Your task to perform on an android device: Open the calendar and show me this week's events Image 0: 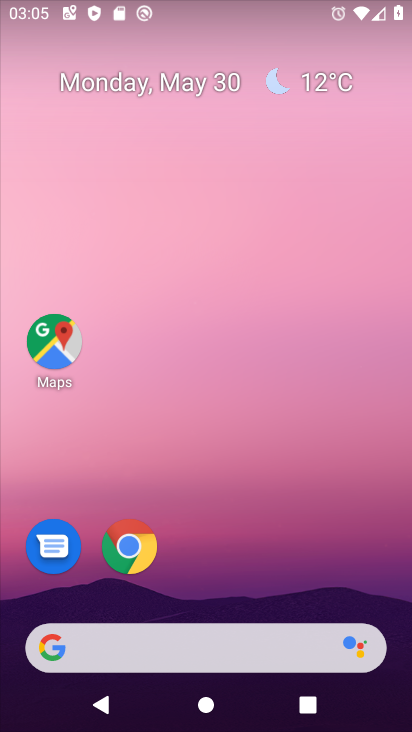
Step 0: click (218, 592)
Your task to perform on an android device: Open the calendar and show me this week's events Image 1: 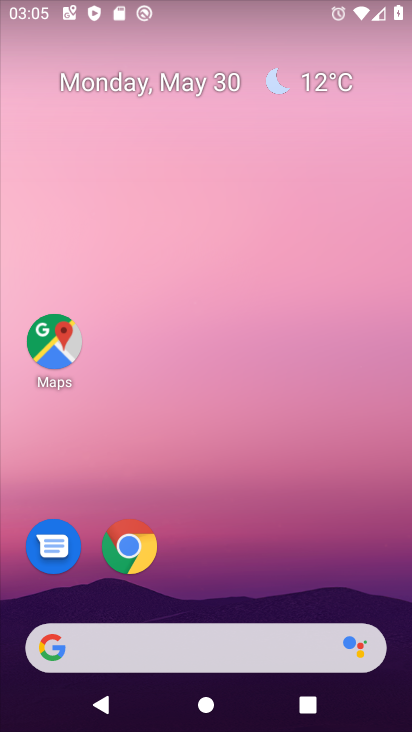
Step 1: drag from (214, 270) to (214, 104)
Your task to perform on an android device: Open the calendar and show me this week's events Image 2: 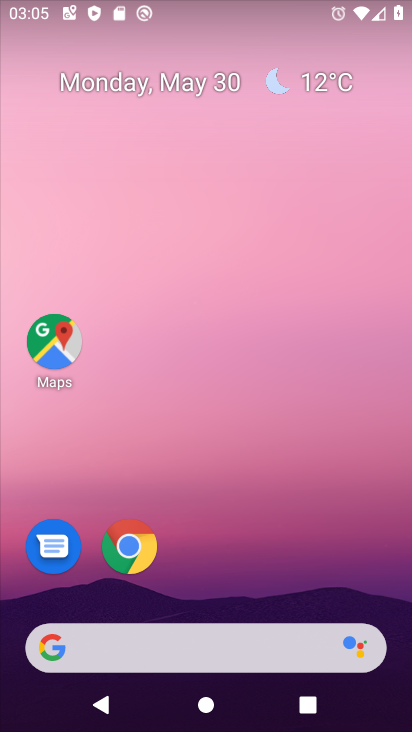
Step 2: drag from (214, 612) to (216, 31)
Your task to perform on an android device: Open the calendar and show me this week's events Image 3: 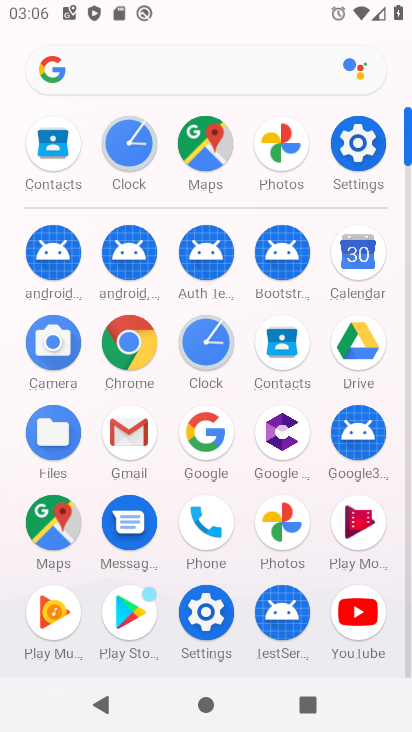
Step 3: click (357, 253)
Your task to perform on an android device: Open the calendar and show me this week's events Image 4: 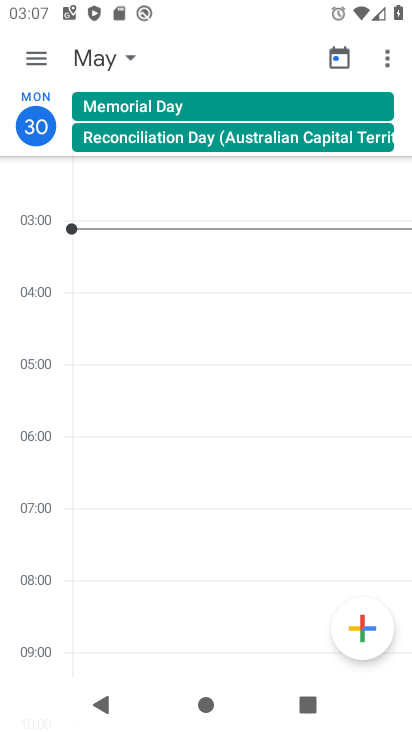
Step 4: click (55, 138)
Your task to perform on an android device: Open the calendar and show me this week's events Image 5: 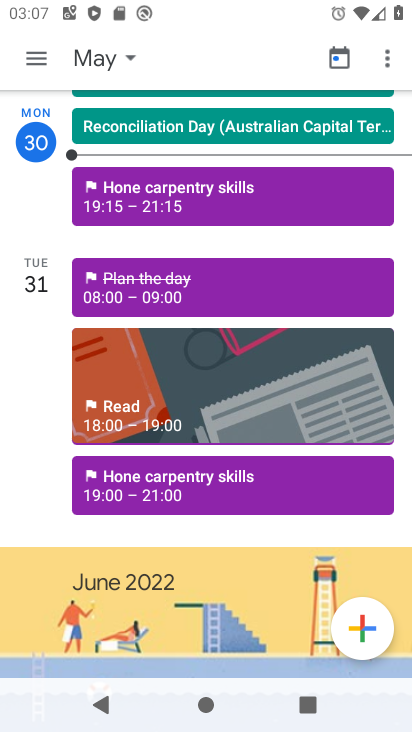
Step 5: click (30, 62)
Your task to perform on an android device: Open the calendar and show me this week's events Image 6: 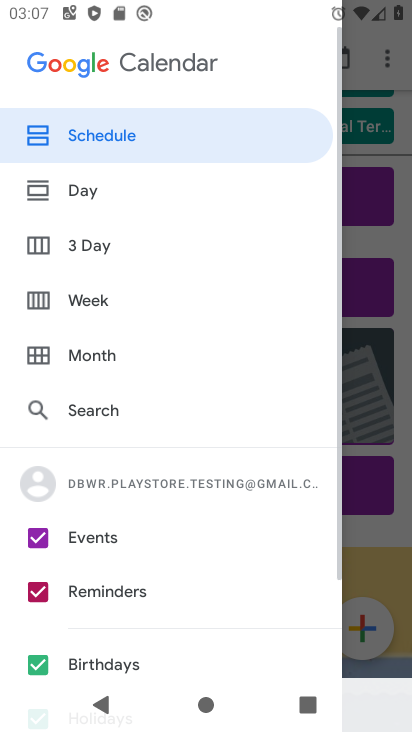
Step 6: click (31, 594)
Your task to perform on an android device: Open the calendar and show me this week's events Image 7: 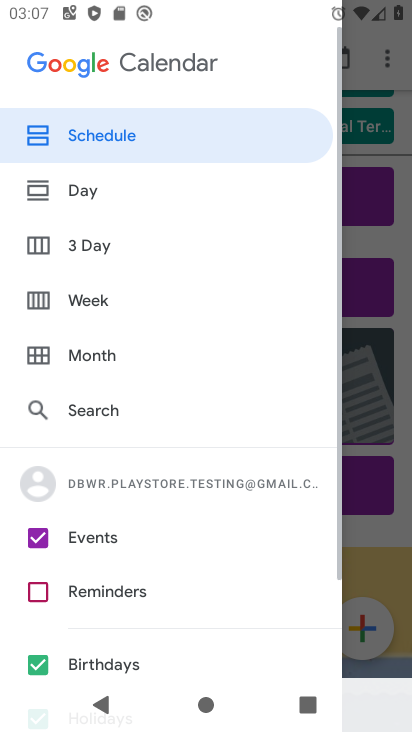
Step 7: click (40, 655)
Your task to perform on an android device: Open the calendar and show me this week's events Image 8: 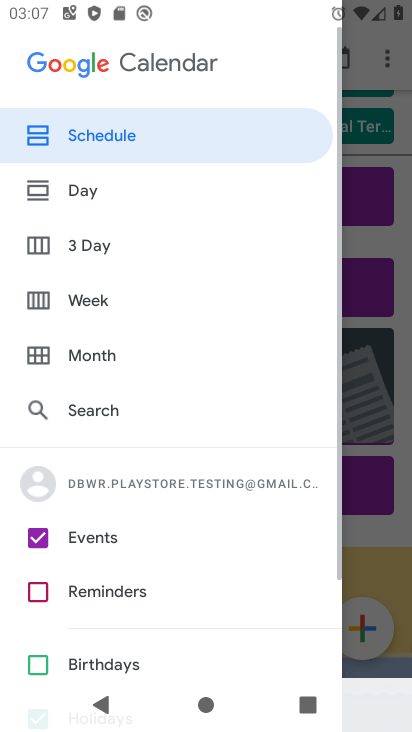
Step 8: drag from (88, 630) to (136, 268)
Your task to perform on an android device: Open the calendar and show me this week's events Image 9: 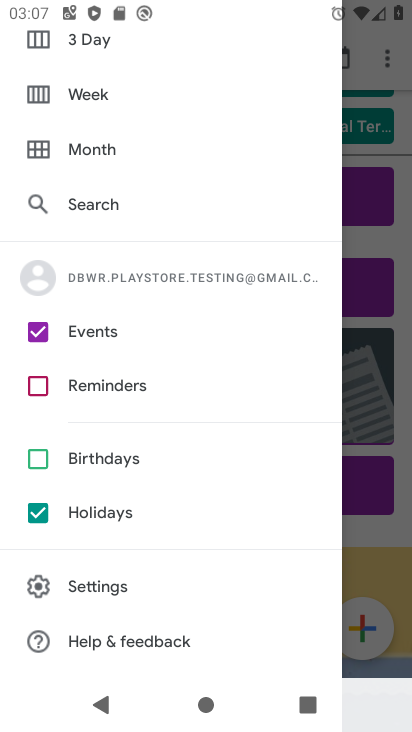
Step 9: click (41, 507)
Your task to perform on an android device: Open the calendar and show me this week's events Image 10: 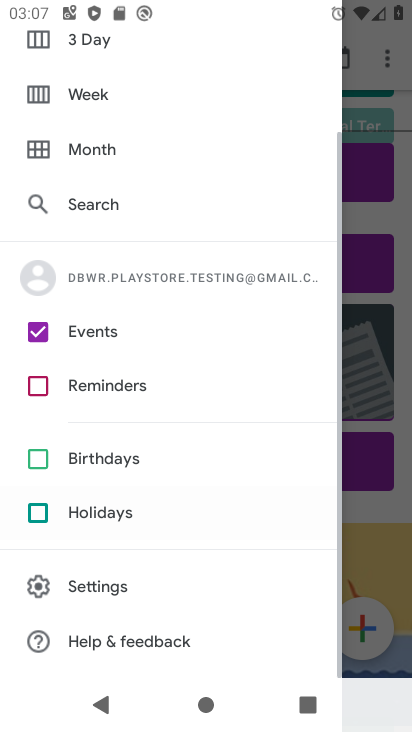
Step 10: drag from (119, 176) to (156, 535)
Your task to perform on an android device: Open the calendar and show me this week's events Image 11: 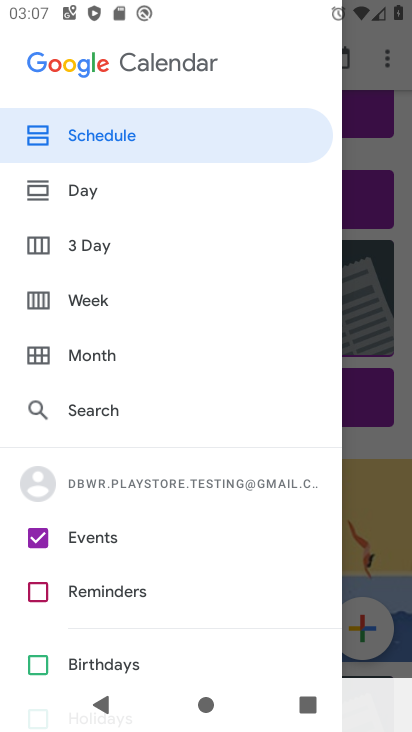
Step 11: click (98, 133)
Your task to perform on an android device: Open the calendar and show me this week's events Image 12: 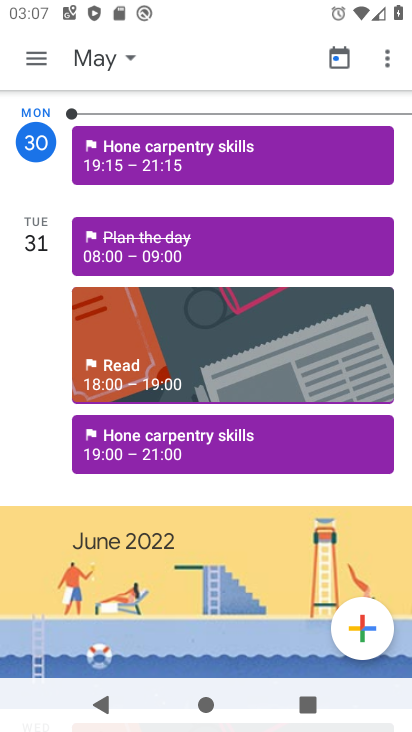
Step 12: task complete